Your task to perform on an android device: check out phone information Image 0: 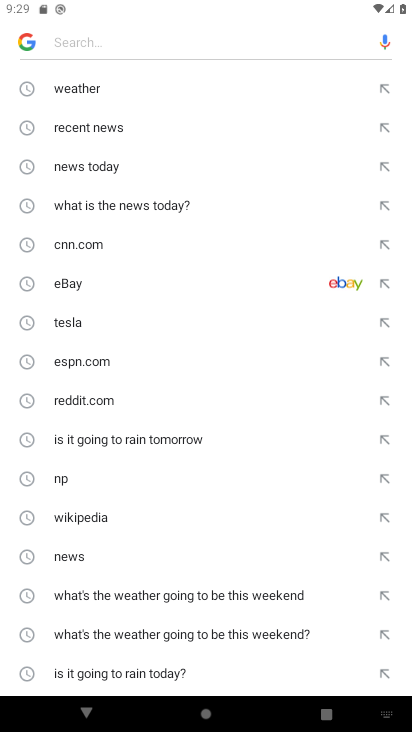
Step 0: press home button
Your task to perform on an android device: check out phone information Image 1: 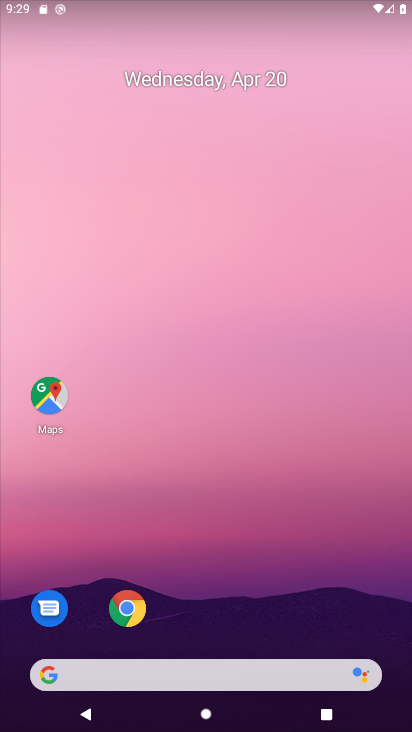
Step 1: drag from (208, 627) to (281, 2)
Your task to perform on an android device: check out phone information Image 2: 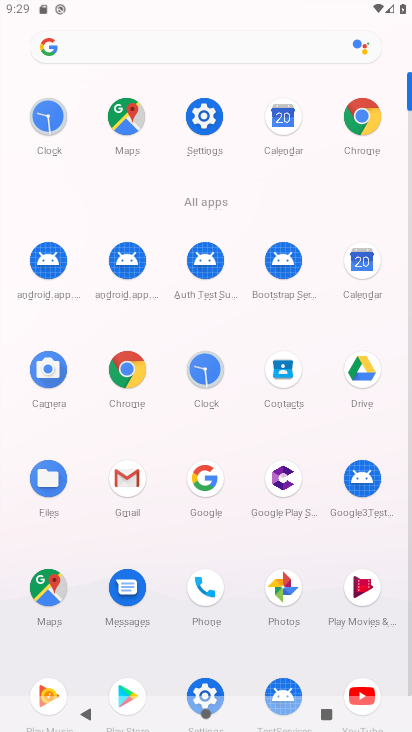
Step 2: click (200, 128)
Your task to perform on an android device: check out phone information Image 3: 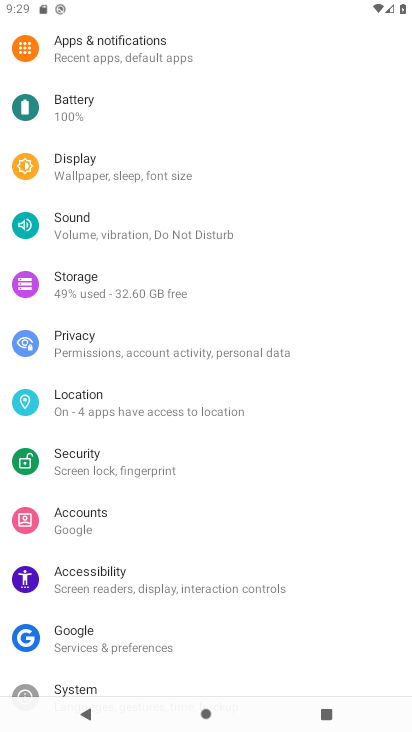
Step 3: drag from (148, 637) to (179, 170)
Your task to perform on an android device: check out phone information Image 4: 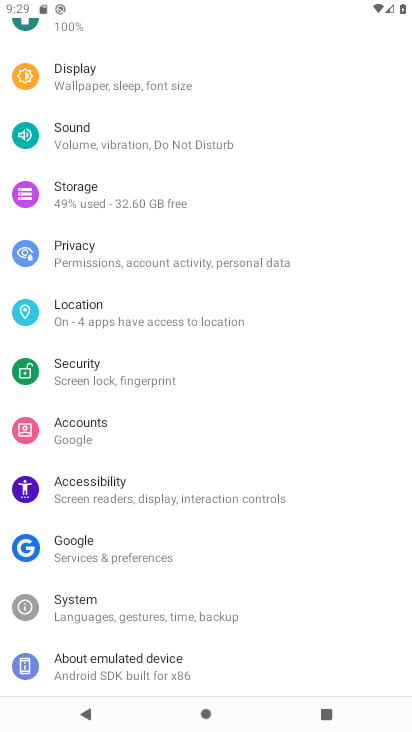
Step 4: click (125, 662)
Your task to perform on an android device: check out phone information Image 5: 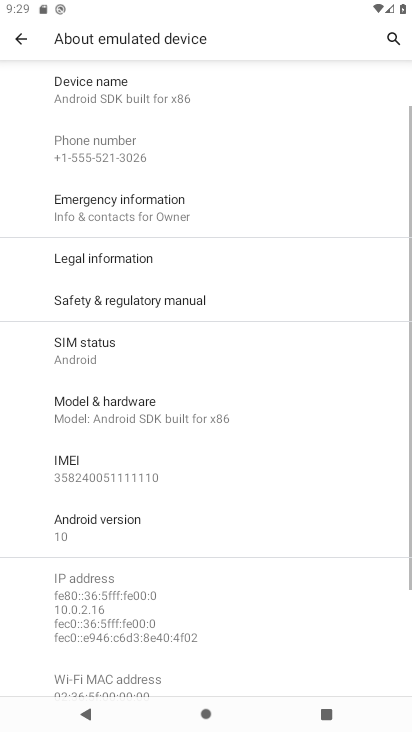
Step 5: task complete